Your task to perform on an android device: toggle pop-ups in chrome Image 0: 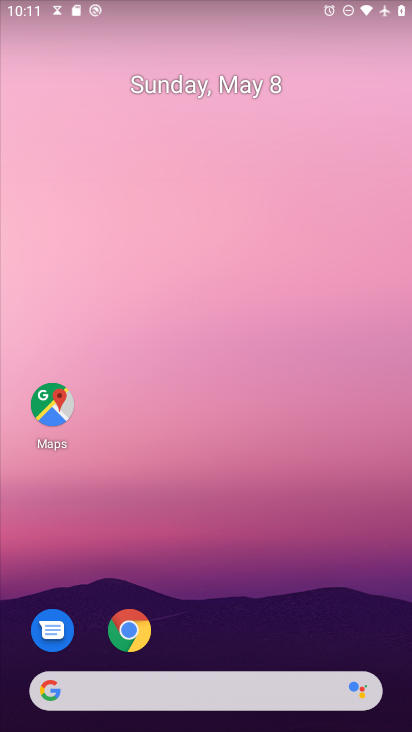
Step 0: click (139, 633)
Your task to perform on an android device: toggle pop-ups in chrome Image 1: 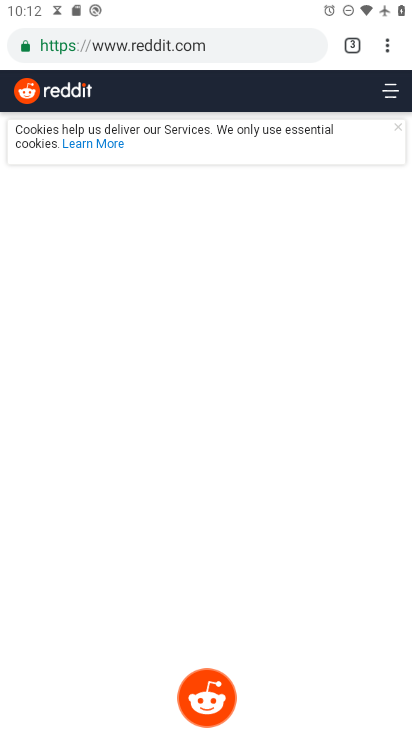
Step 1: drag from (383, 41) to (229, 558)
Your task to perform on an android device: toggle pop-ups in chrome Image 2: 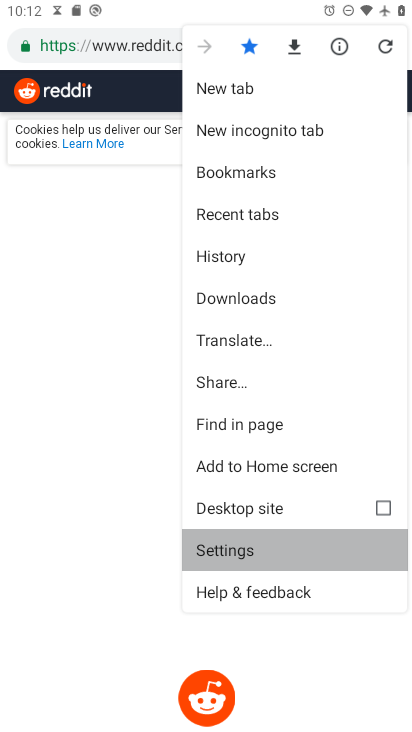
Step 2: click (229, 558)
Your task to perform on an android device: toggle pop-ups in chrome Image 3: 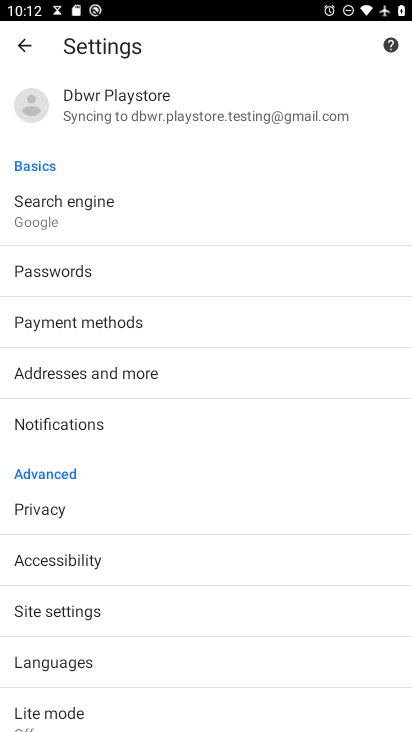
Step 3: click (83, 611)
Your task to perform on an android device: toggle pop-ups in chrome Image 4: 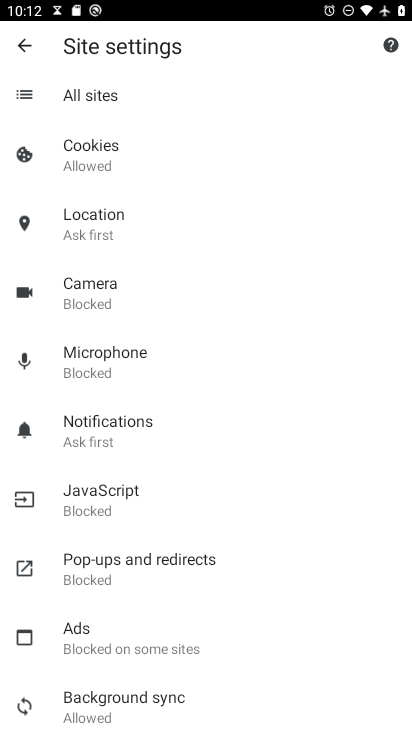
Step 4: click (125, 558)
Your task to perform on an android device: toggle pop-ups in chrome Image 5: 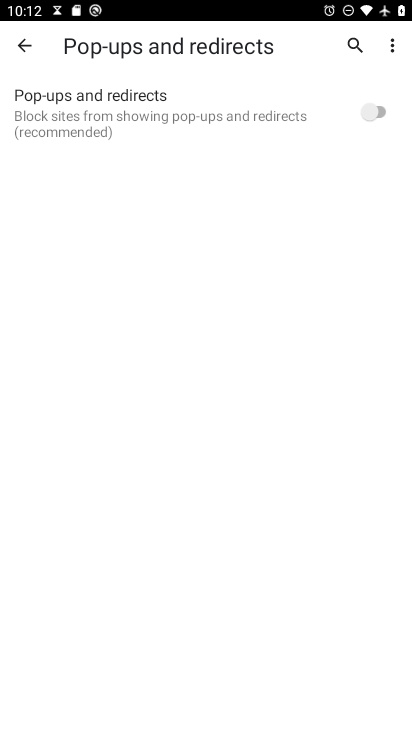
Step 5: click (382, 112)
Your task to perform on an android device: toggle pop-ups in chrome Image 6: 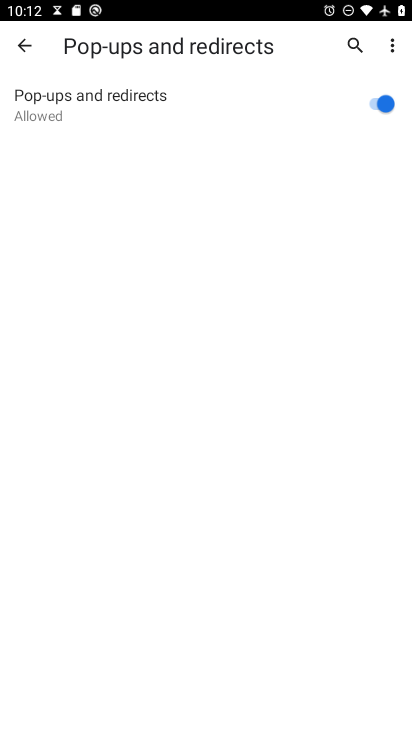
Step 6: task complete